Your task to perform on an android device: Go to Google maps Image 0: 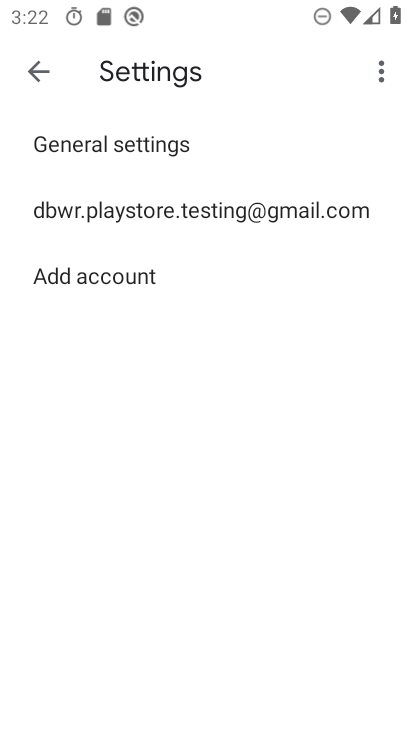
Step 0: press home button
Your task to perform on an android device: Go to Google maps Image 1: 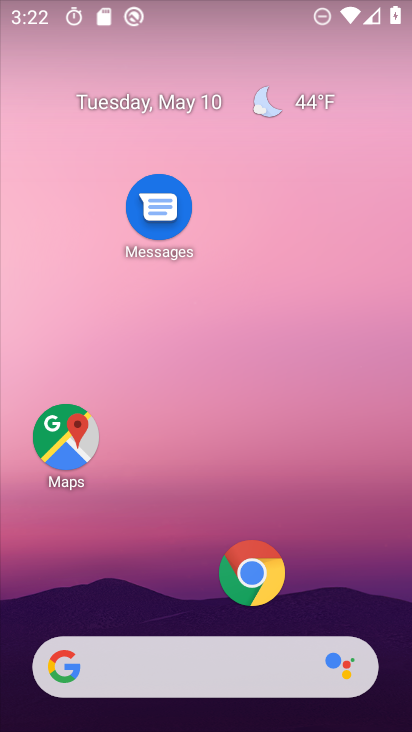
Step 1: click (83, 454)
Your task to perform on an android device: Go to Google maps Image 2: 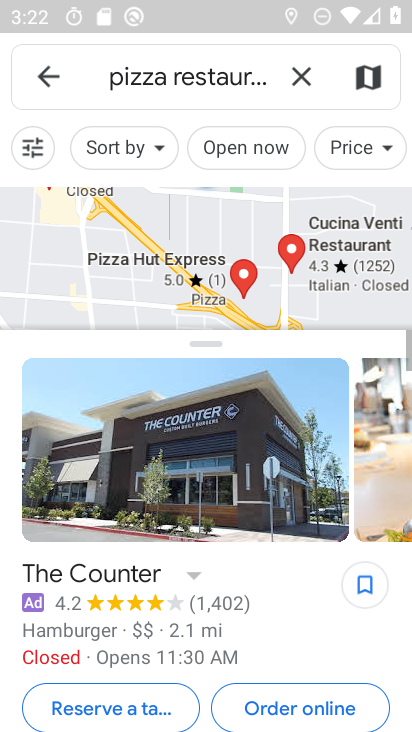
Step 2: click (303, 76)
Your task to perform on an android device: Go to Google maps Image 3: 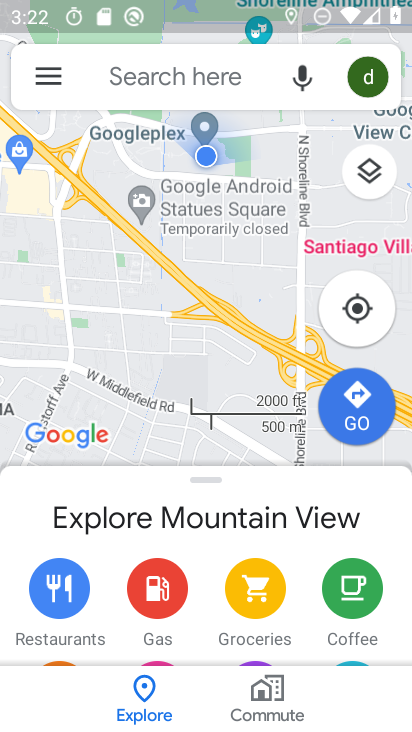
Step 3: click (176, 87)
Your task to perform on an android device: Go to Google maps Image 4: 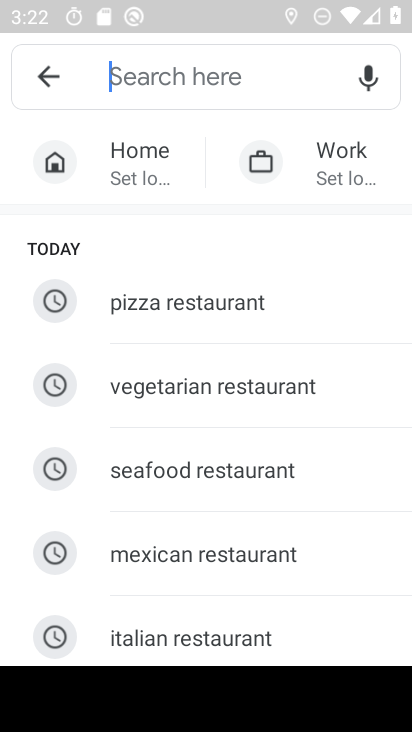
Step 4: click (52, 69)
Your task to perform on an android device: Go to Google maps Image 5: 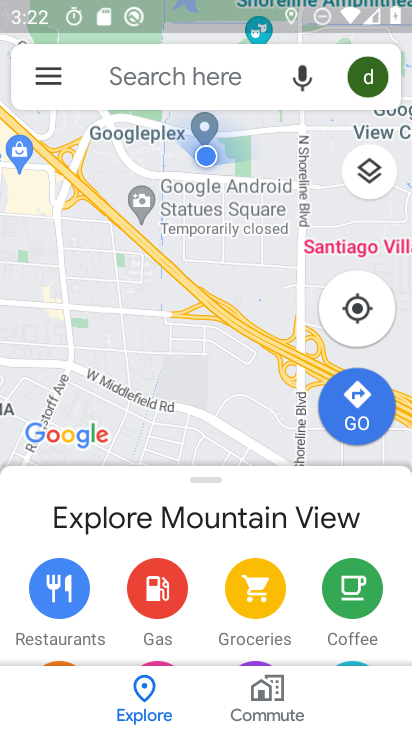
Step 5: task complete